Your task to perform on an android device: Turn off the flashlight Image 0: 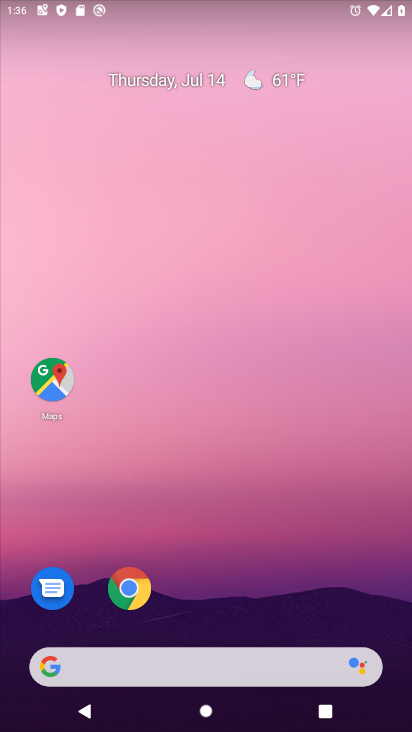
Step 0: drag from (254, 593) to (216, 1)
Your task to perform on an android device: Turn off the flashlight Image 1: 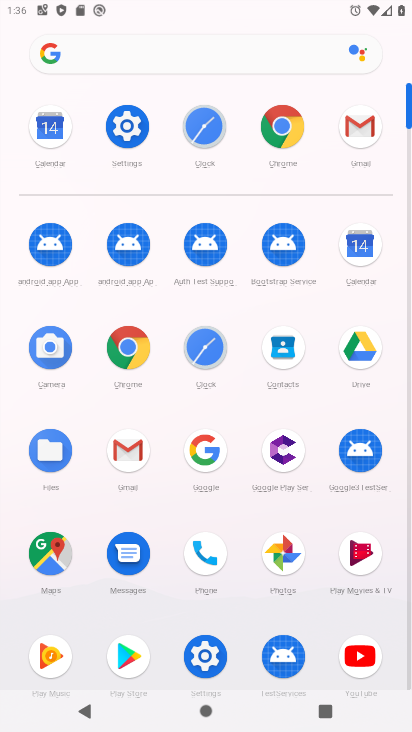
Step 1: click (129, 115)
Your task to perform on an android device: Turn off the flashlight Image 2: 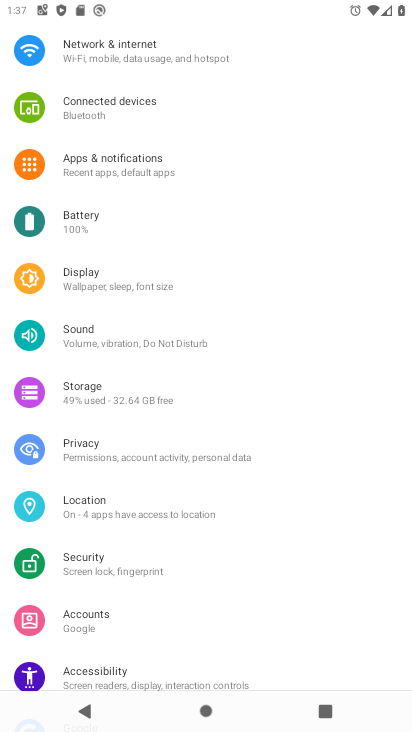
Step 2: task complete